Your task to perform on an android device: Go to Android settings Image 0: 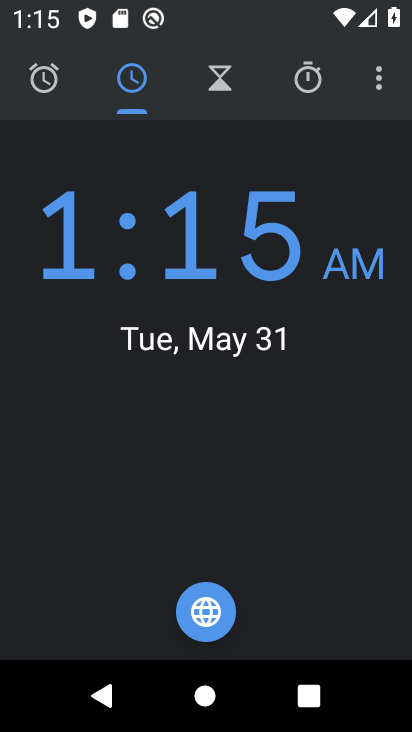
Step 0: press home button
Your task to perform on an android device: Go to Android settings Image 1: 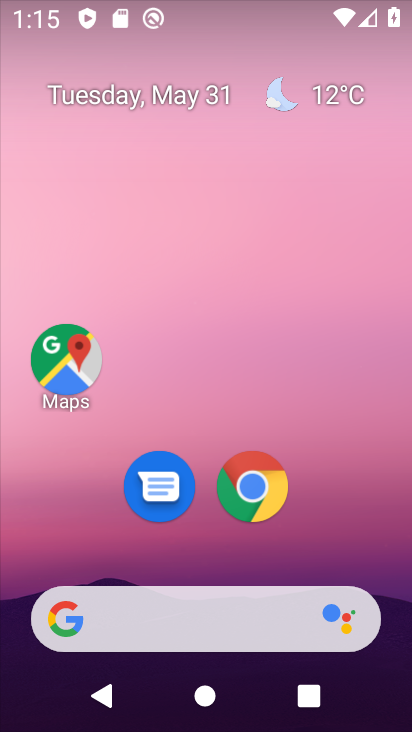
Step 1: drag from (134, 554) to (144, 268)
Your task to perform on an android device: Go to Android settings Image 2: 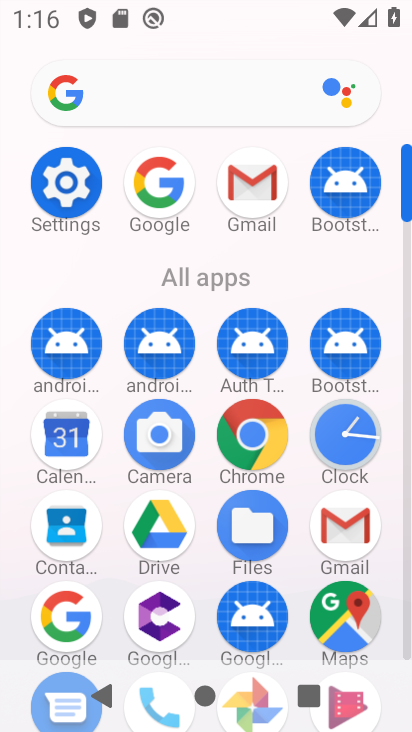
Step 2: click (41, 185)
Your task to perform on an android device: Go to Android settings Image 3: 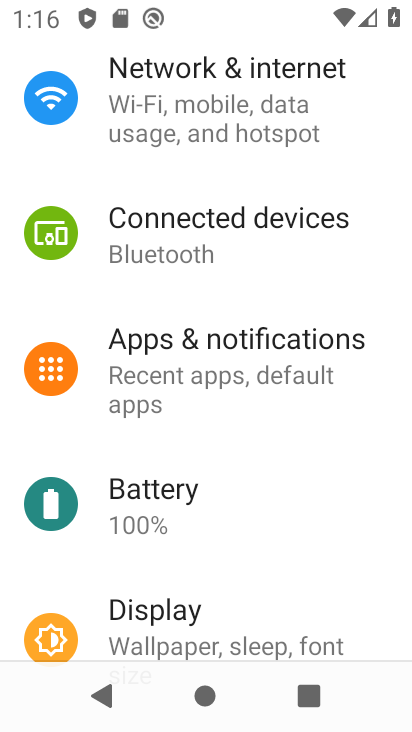
Step 3: drag from (236, 407) to (243, 311)
Your task to perform on an android device: Go to Android settings Image 4: 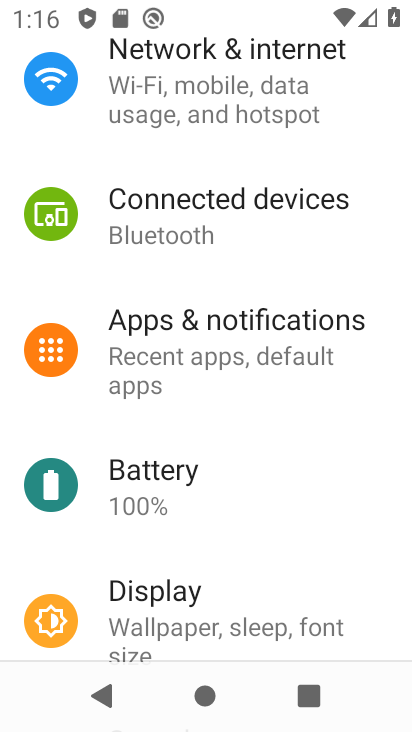
Step 4: drag from (229, 493) to (271, 251)
Your task to perform on an android device: Go to Android settings Image 5: 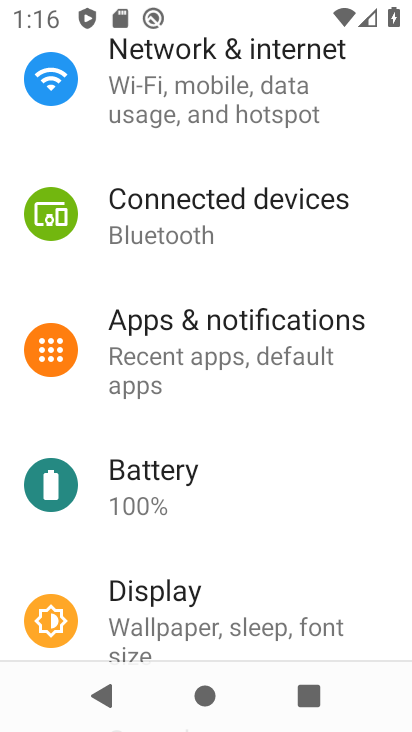
Step 5: drag from (217, 605) to (217, 151)
Your task to perform on an android device: Go to Android settings Image 6: 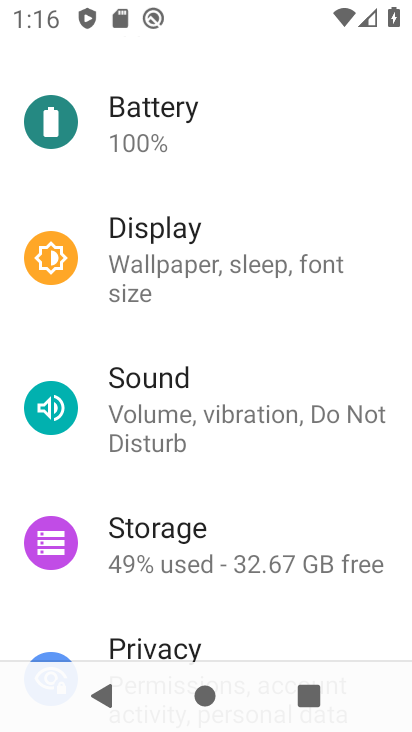
Step 6: drag from (188, 591) to (236, 187)
Your task to perform on an android device: Go to Android settings Image 7: 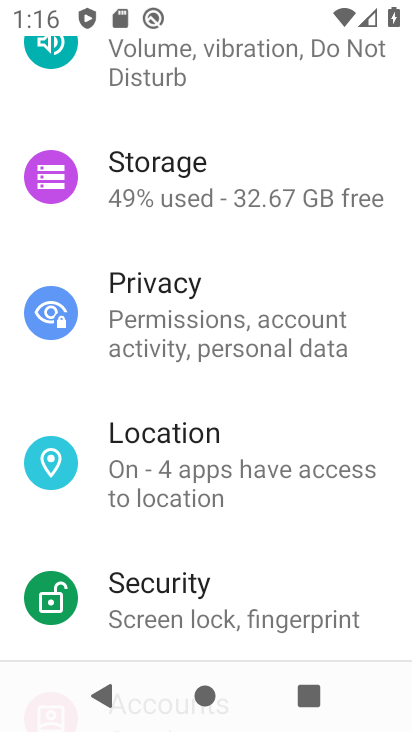
Step 7: drag from (224, 578) to (240, 75)
Your task to perform on an android device: Go to Android settings Image 8: 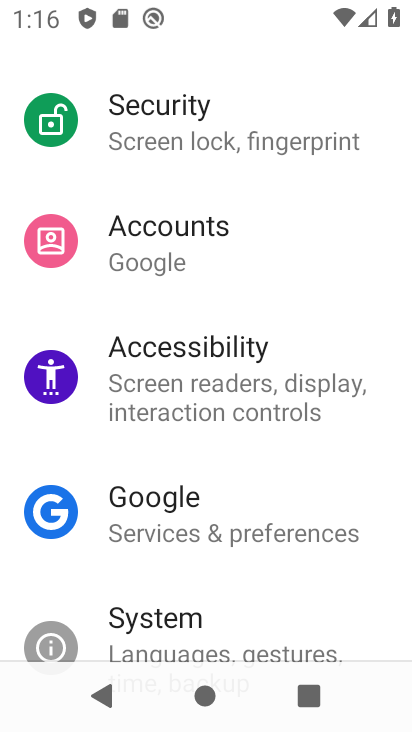
Step 8: drag from (240, 581) to (230, 89)
Your task to perform on an android device: Go to Android settings Image 9: 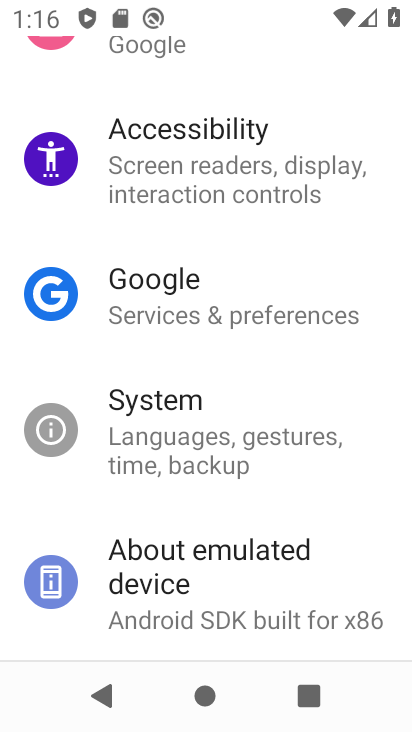
Step 9: click (209, 602)
Your task to perform on an android device: Go to Android settings Image 10: 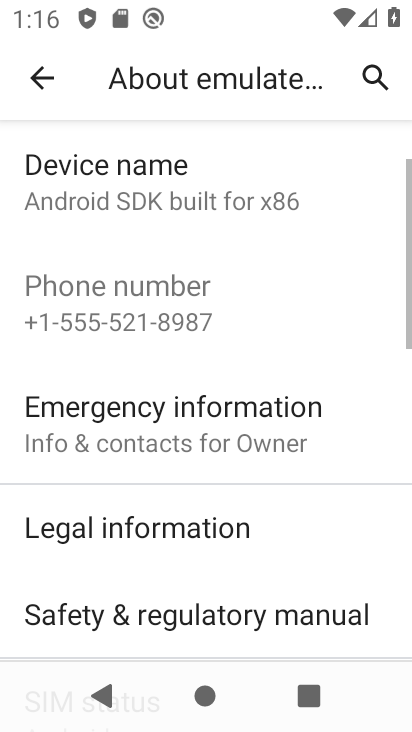
Step 10: drag from (191, 561) to (178, 221)
Your task to perform on an android device: Go to Android settings Image 11: 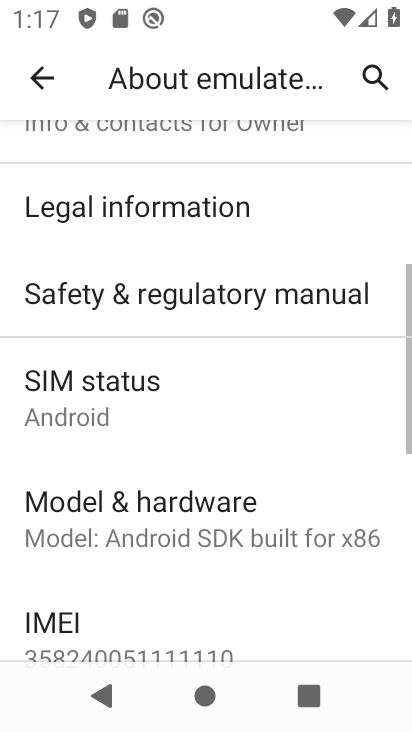
Step 11: drag from (174, 551) to (172, 200)
Your task to perform on an android device: Go to Android settings Image 12: 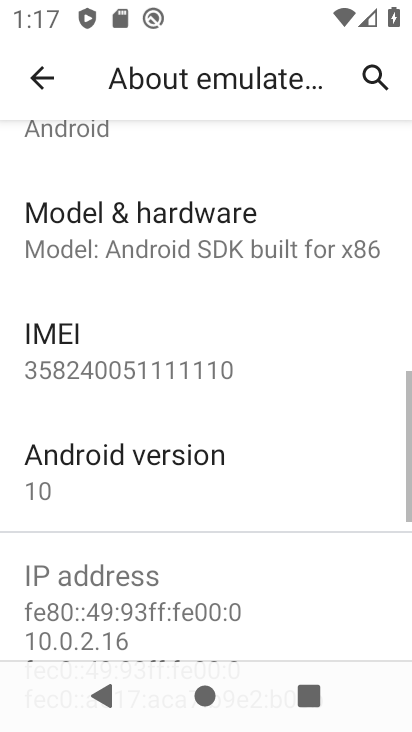
Step 12: click (171, 481)
Your task to perform on an android device: Go to Android settings Image 13: 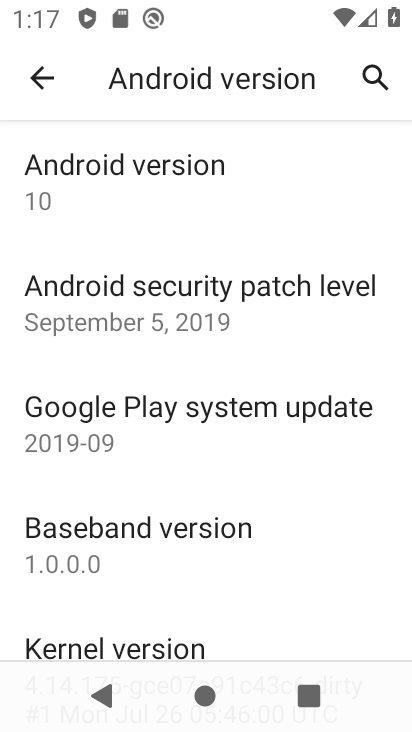
Step 13: task complete